Your task to perform on an android device: check data usage Image 0: 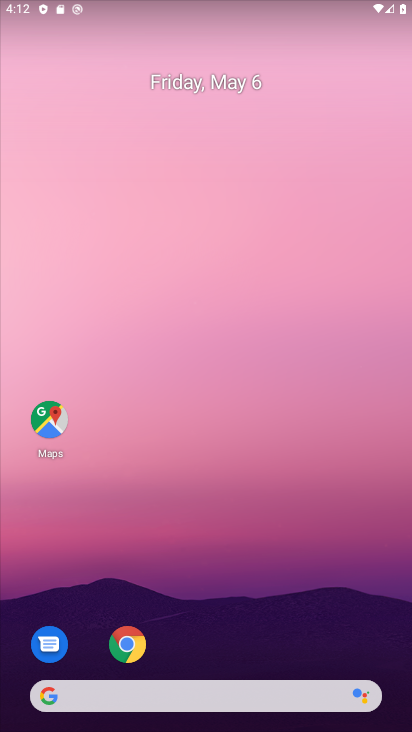
Step 0: drag from (330, 570) to (287, 67)
Your task to perform on an android device: check data usage Image 1: 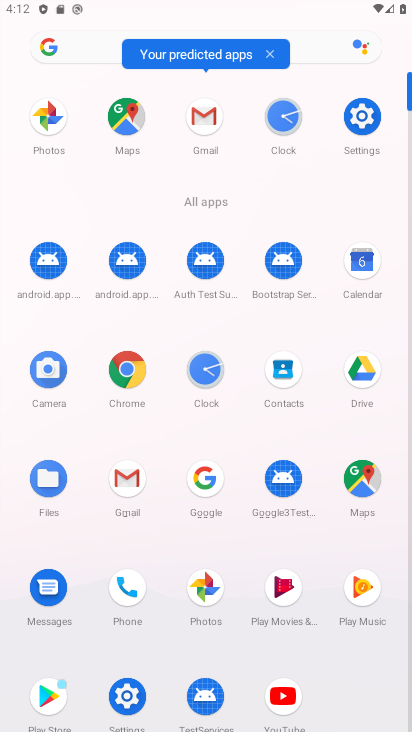
Step 1: click (361, 124)
Your task to perform on an android device: check data usage Image 2: 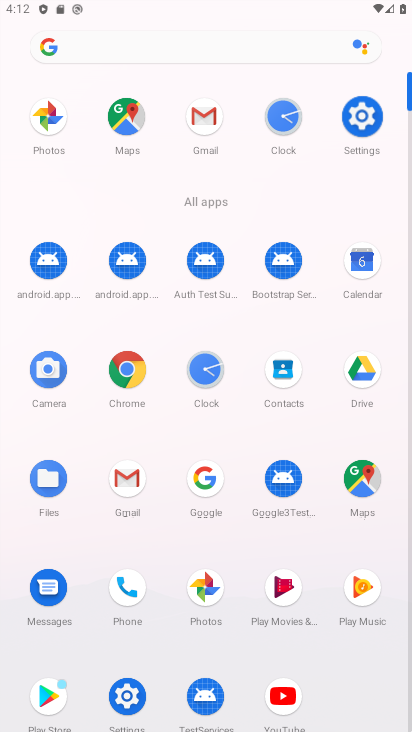
Step 2: click (361, 124)
Your task to perform on an android device: check data usage Image 3: 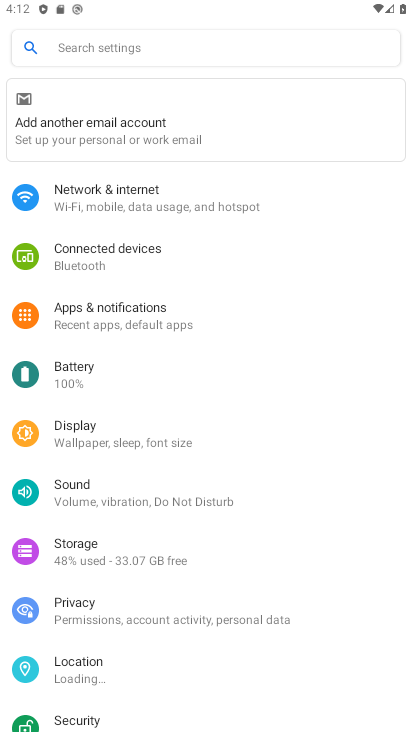
Step 3: click (116, 205)
Your task to perform on an android device: check data usage Image 4: 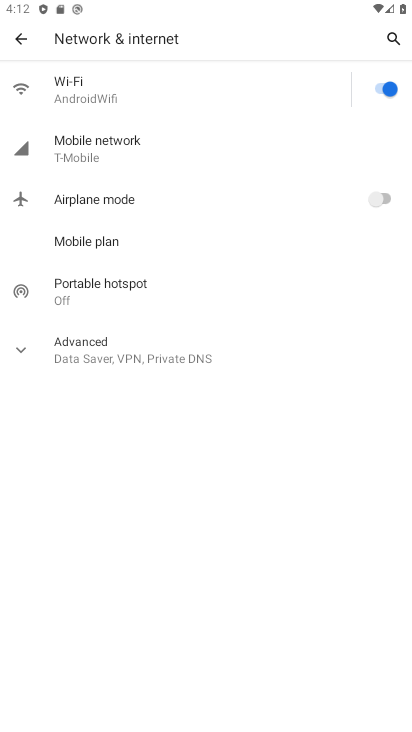
Step 4: task complete